Your task to perform on an android device: Open calendar and show me the first week of next month Image 0: 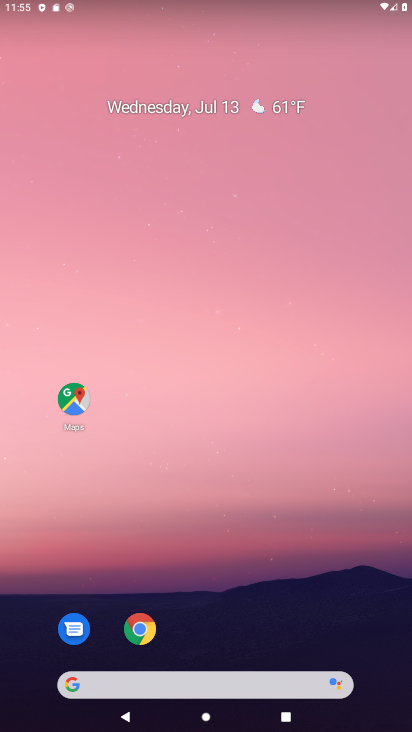
Step 0: drag from (252, 568) to (174, 99)
Your task to perform on an android device: Open calendar and show me the first week of next month Image 1: 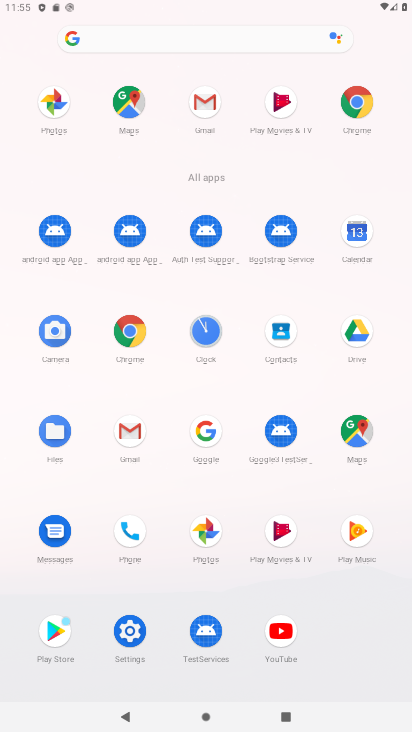
Step 1: click (351, 234)
Your task to perform on an android device: Open calendar and show me the first week of next month Image 2: 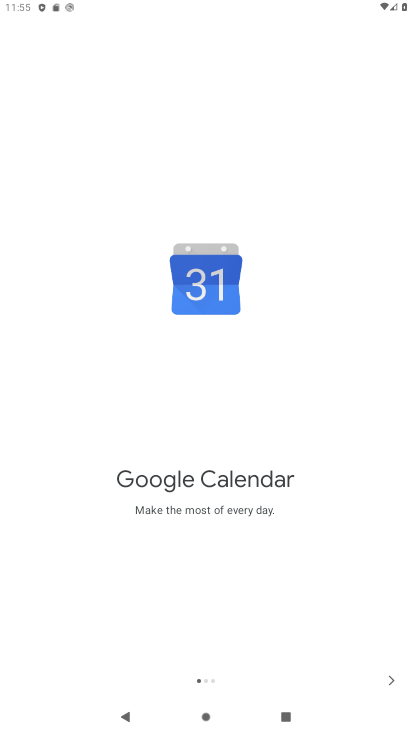
Step 2: click (389, 679)
Your task to perform on an android device: Open calendar and show me the first week of next month Image 3: 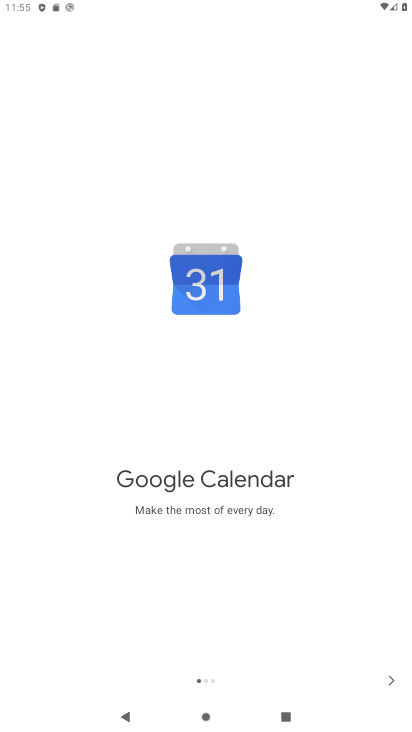
Step 3: click (389, 679)
Your task to perform on an android device: Open calendar and show me the first week of next month Image 4: 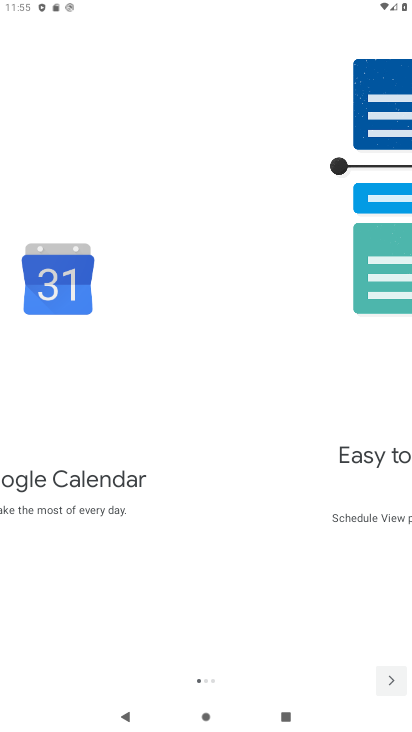
Step 4: click (389, 679)
Your task to perform on an android device: Open calendar and show me the first week of next month Image 5: 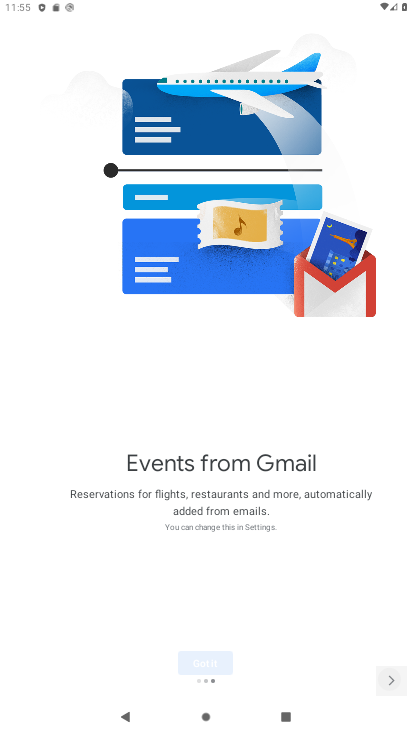
Step 5: click (389, 679)
Your task to perform on an android device: Open calendar and show me the first week of next month Image 6: 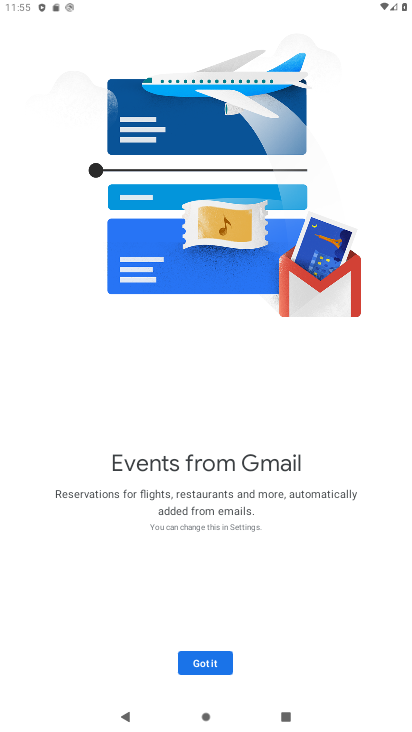
Step 6: click (201, 663)
Your task to perform on an android device: Open calendar and show me the first week of next month Image 7: 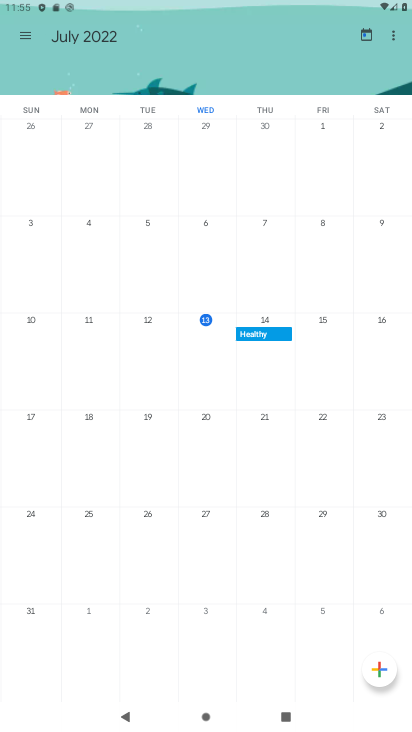
Step 7: click (27, 36)
Your task to perform on an android device: Open calendar and show me the first week of next month Image 8: 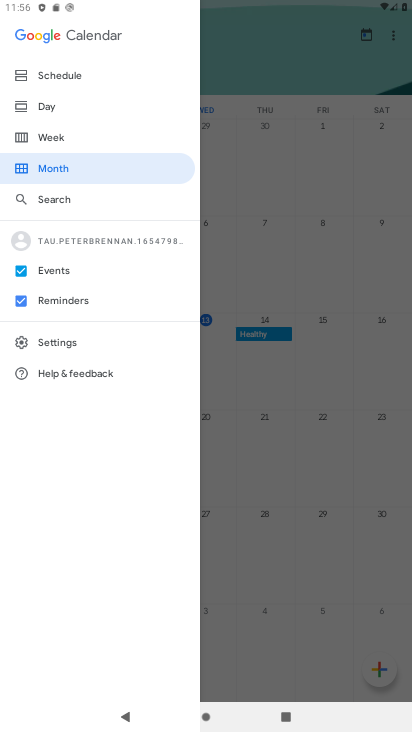
Step 8: click (47, 133)
Your task to perform on an android device: Open calendar and show me the first week of next month Image 9: 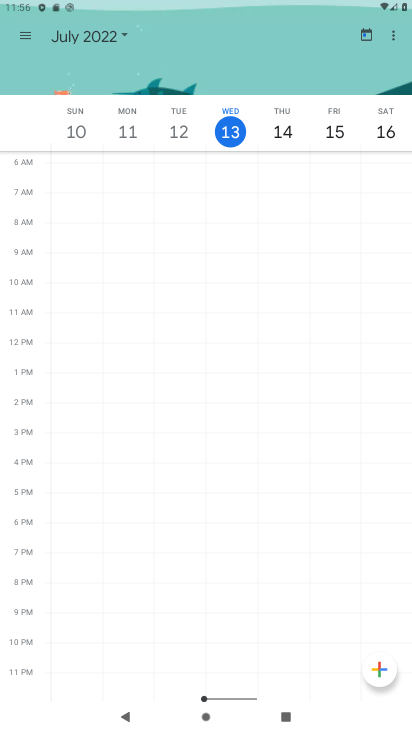
Step 9: click (121, 33)
Your task to perform on an android device: Open calendar and show me the first week of next month Image 10: 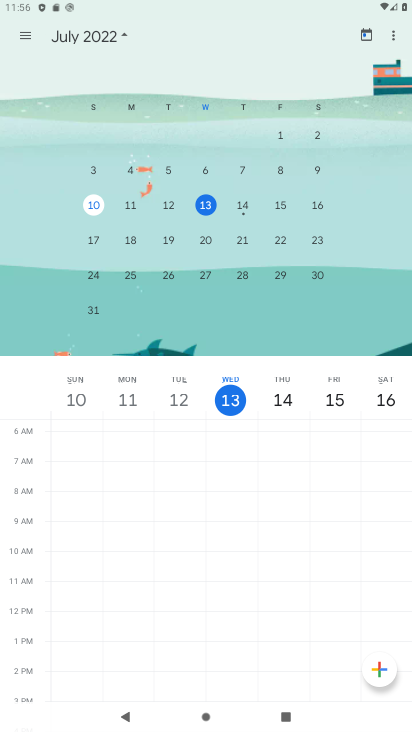
Step 10: drag from (346, 198) to (18, 236)
Your task to perform on an android device: Open calendar and show me the first week of next month Image 11: 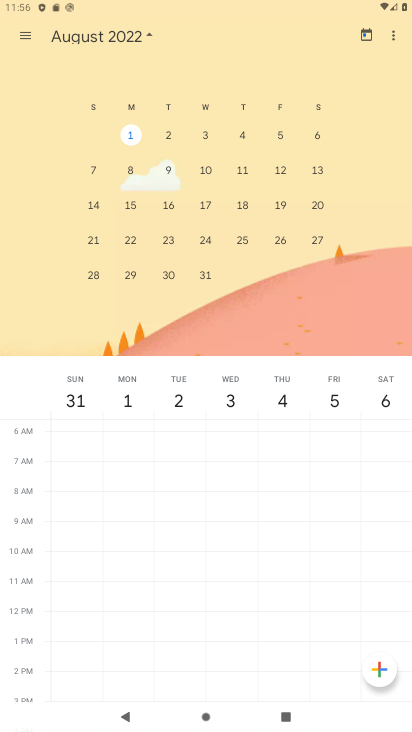
Step 11: click (131, 136)
Your task to perform on an android device: Open calendar and show me the first week of next month Image 12: 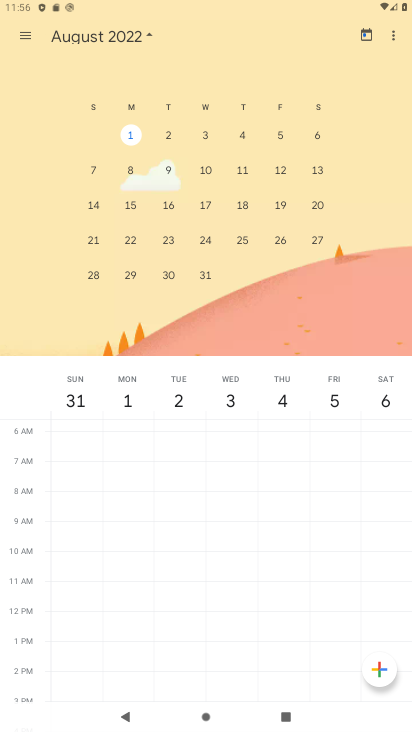
Step 12: task complete